Your task to perform on an android device: toggle improve location accuracy Image 0: 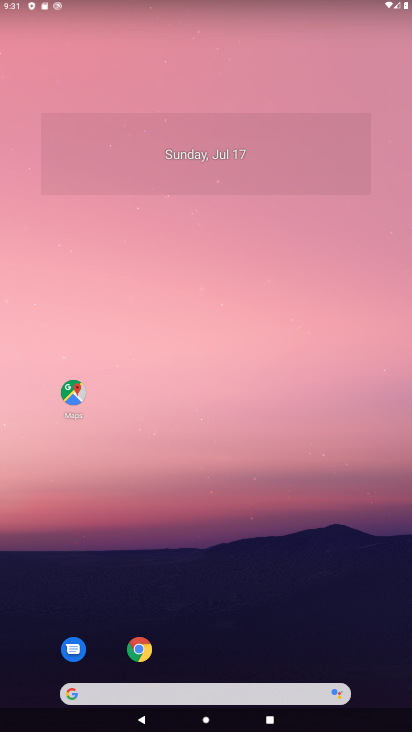
Step 0: drag from (39, 660) to (121, 186)
Your task to perform on an android device: toggle improve location accuracy Image 1: 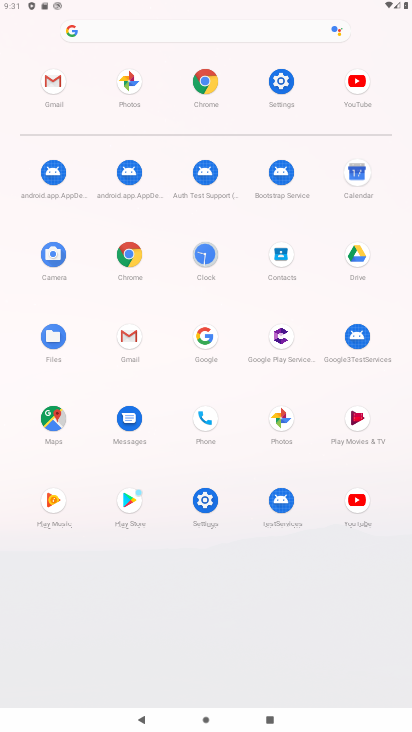
Step 1: click (194, 509)
Your task to perform on an android device: toggle improve location accuracy Image 2: 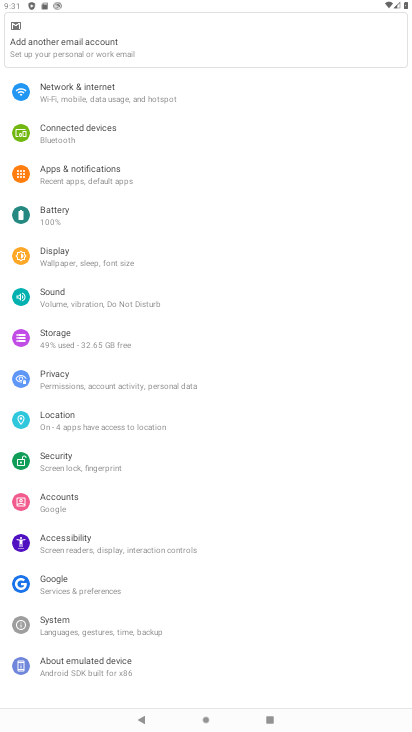
Step 2: click (85, 418)
Your task to perform on an android device: toggle improve location accuracy Image 3: 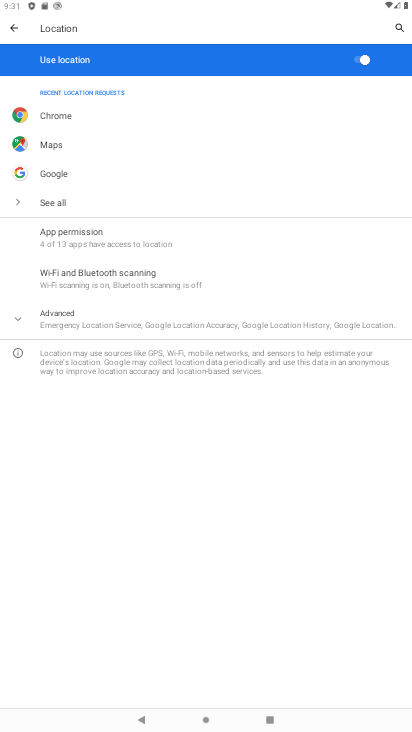
Step 3: click (68, 311)
Your task to perform on an android device: toggle improve location accuracy Image 4: 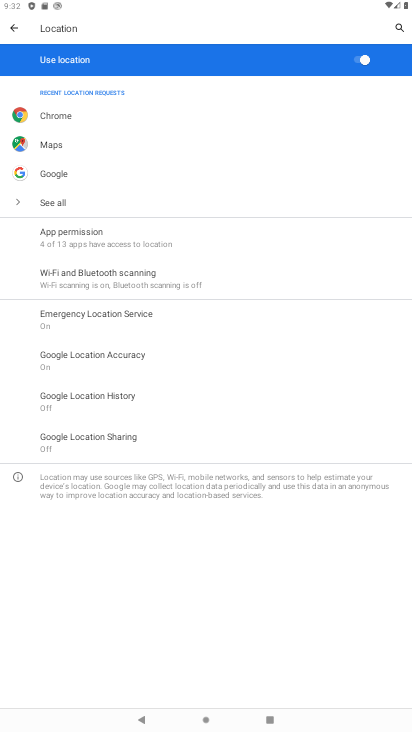
Step 4: task complete